Your task to perform on an android device: What is the recent news? Image 0: 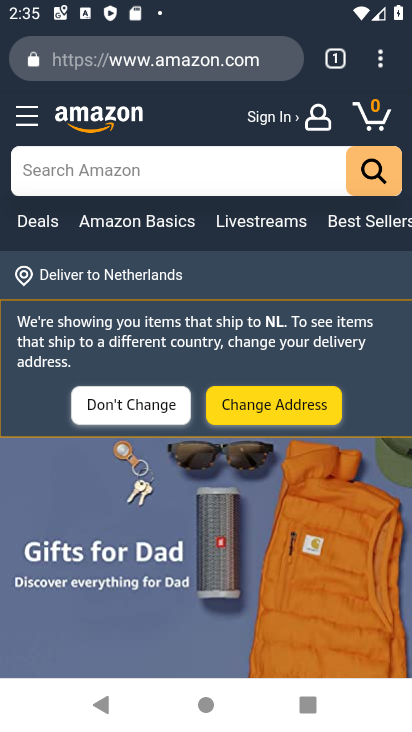
Step 0: press home button
Your task to perform on an android device: What is the recent news? Image 1: 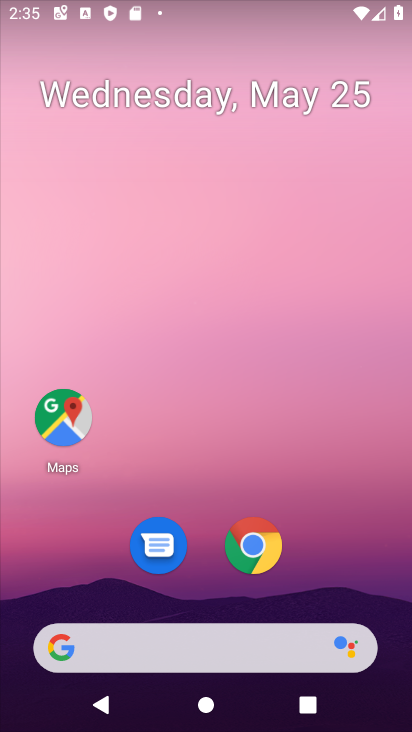
Step 1: click (253, 625)
Your task to perform on an android device: What is the recent news? Image 2: 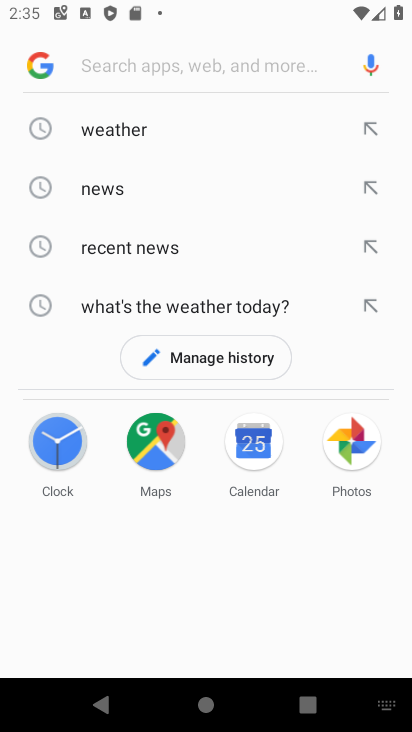
Step 2: click (151, 259)
Your task to perform on an android device: What is the recent news? Image 3: 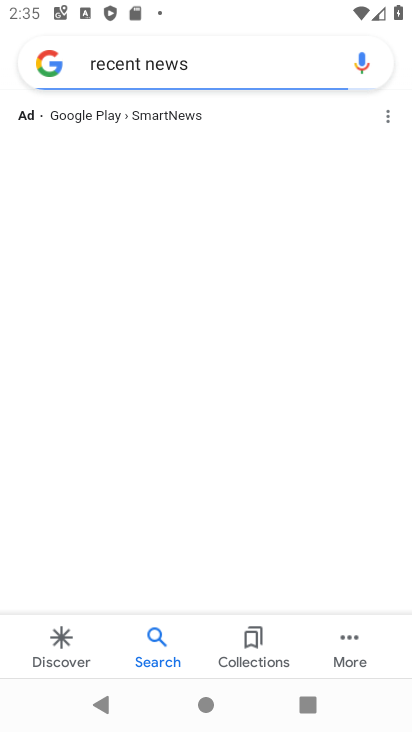
Step 3: task complete